Your task to perform on an android device: Do I have any events tomorrow? Image 0: 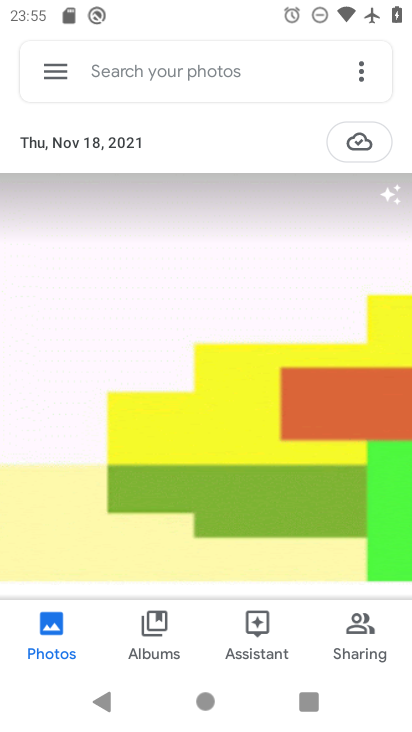
Step 0: press home button
Your task to perform on an android device: Do I have any events tomorrow? Image 1: 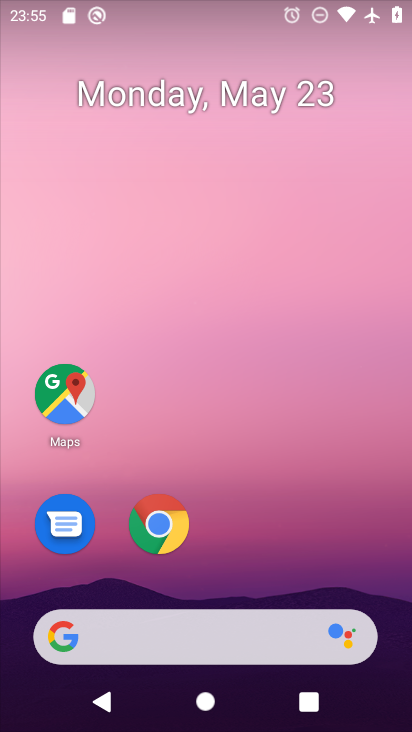
Step 1: drag from (232, 552) to (234, 113)
Your task to perform on an android device: Do I have any events tomorrow? Image 2: 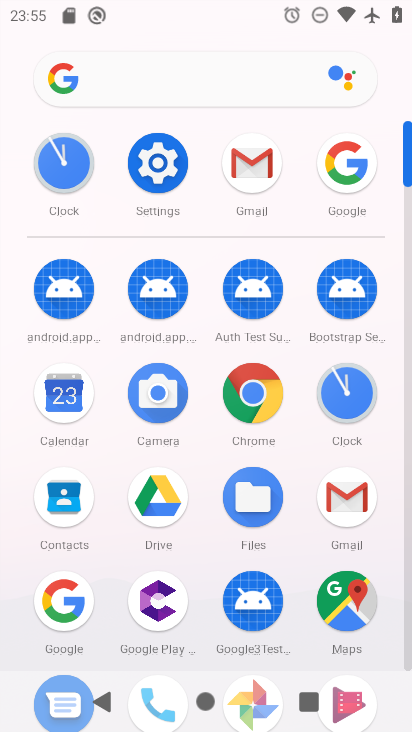
Step 2: click (53, 415)
Your task to perform on an android device: Do I have any events tomorrow? Image 3: 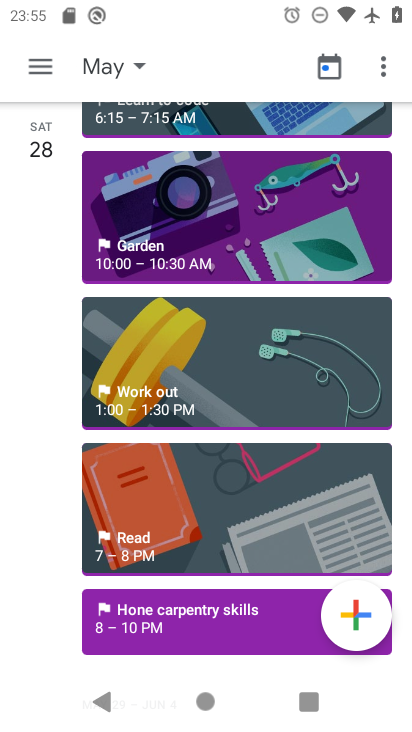
Step 3: click (124, 76)
Your task to perform on an android device: Do I have any events tomorrow? Image 4: 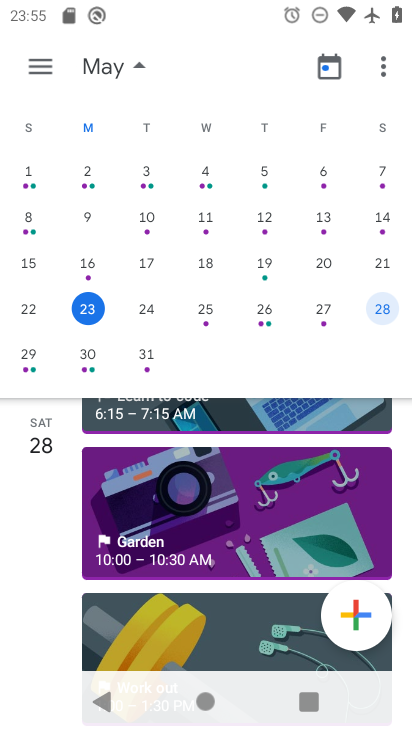
Step 4: click (148, 299)
Your task to perform on an android device: Do I have any events tomorrow? Image 5: 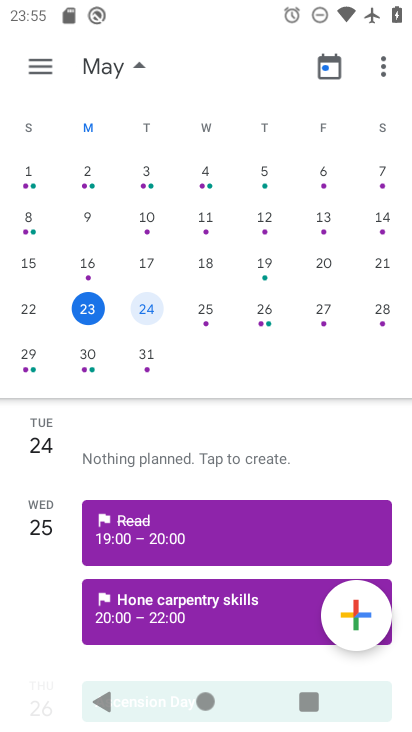
Step 5: drag from (228, 520) to (232, 372)
Your task to perform on an android device: Do I have any events tomorrow? Image 6: 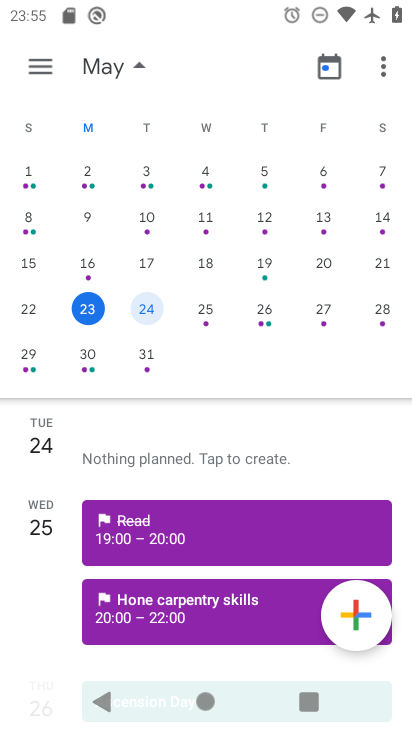
Step 6: click (139, 310)
Your task to perform on an android device: Do I have any events tomorrow? Image 7: 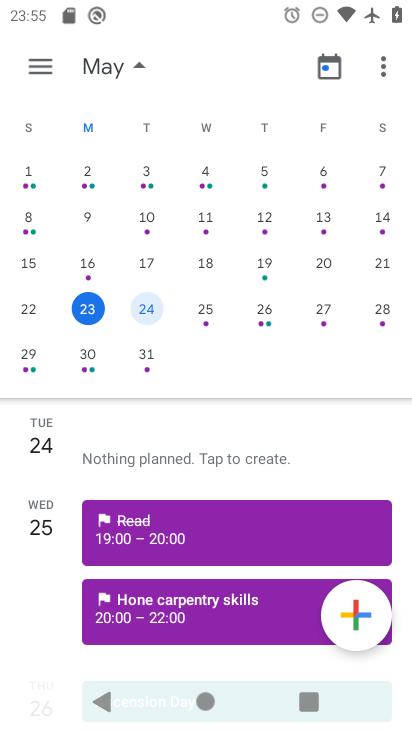
Step 7: task complete